Your task to perform on an android device: toggle notifications settings in the gmail app Image 0: 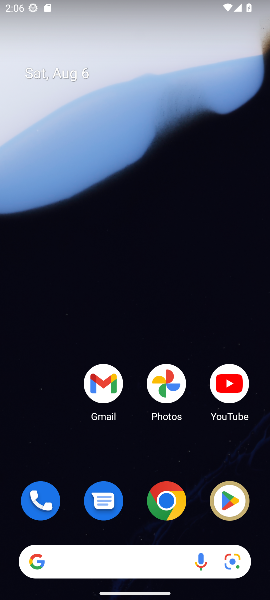
Step 0: press home button
Your task to perform on an android device: toggle notifications settings in the gmail app Image 1: 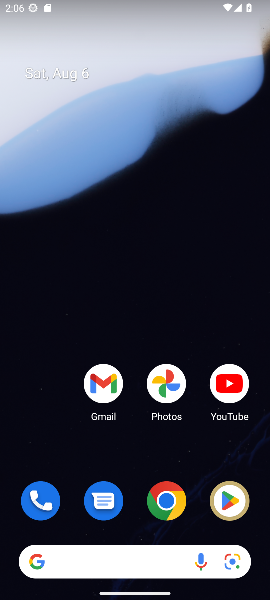
Step 1: click (99, 398)
Your task to perform on an android device: toggle notifications settings in the gmail app Image 2: 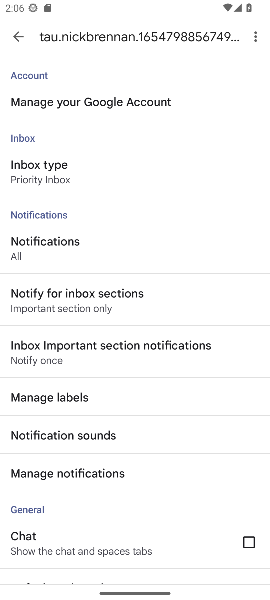
Step 2: click (75, 477)
Your task to perform on an android device: toggle notifications settings in the gmail app Image 3: 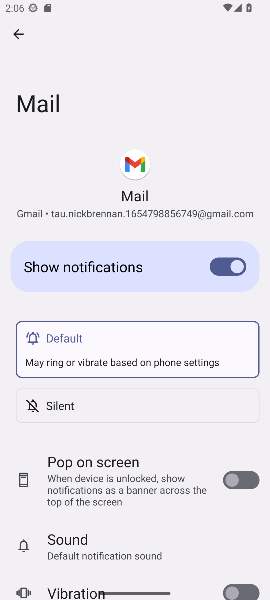
Step 3: click (230, 268)
Your task to perform on an android device: toggle notifications settings in the gmail app Image 4: 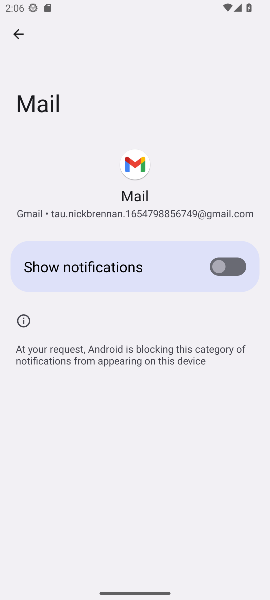
Step 4: task complete